Your task to perform on an android device: find snoozed emails in the gmail app Image 0: 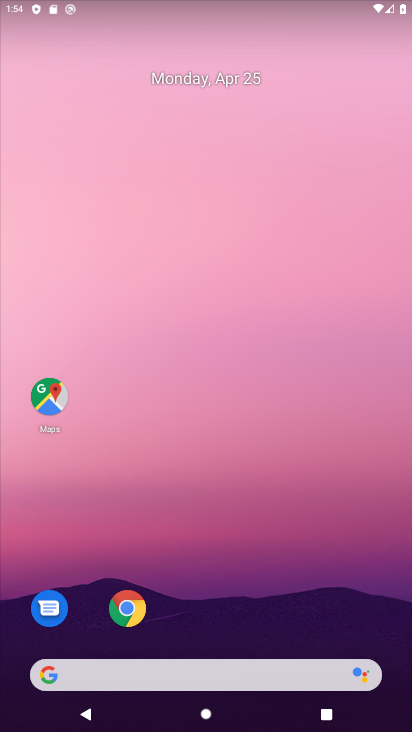
Step 0: drag from (207, 616) to (238, 191)
Your task to perform on an android device: find snoozed emails in the gmail app Image 1: 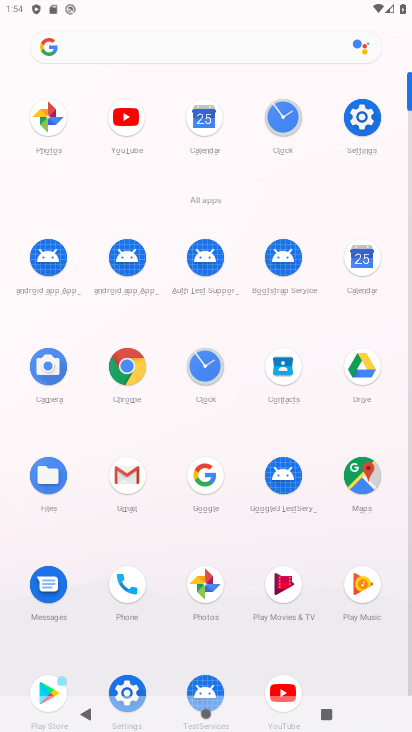
Step 1: click (130, 479)
Your task to perform on an android device: find snoozed emails in the gmail app Image 2: 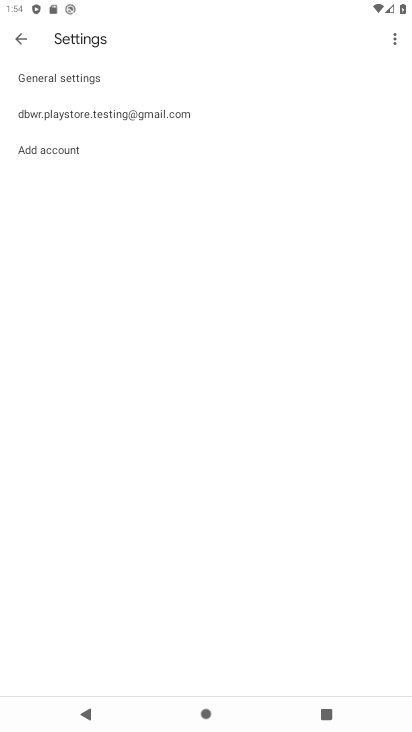
Step 2: click (139, 120)
Your task to perform on an android device: find snoozed emails in the gmail app Image 3: 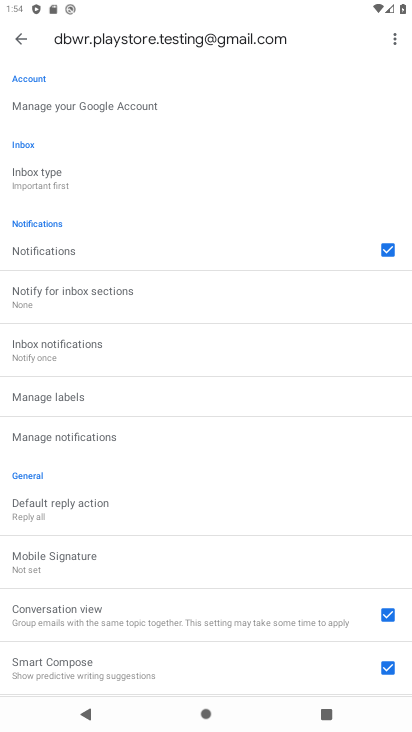
Step 3: drag from (116, 585) to (182, 214)
Your task to perform on an android device: find snoozed emails in the gmail app Image 4: 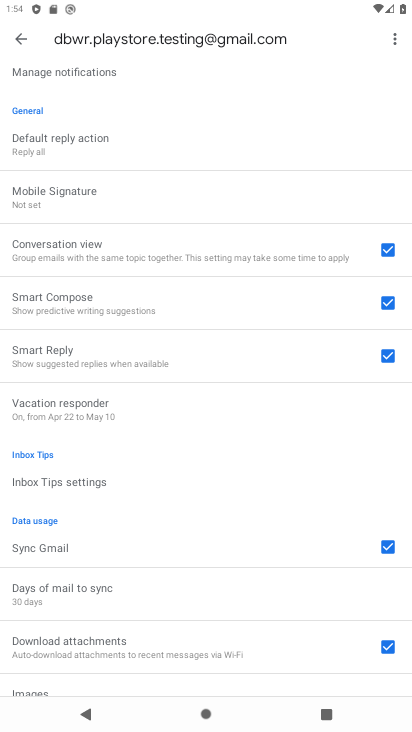
Step 4: click (21, 42)
Your task to perform on an android device: find snoozed emails in the gmail app Image 5: 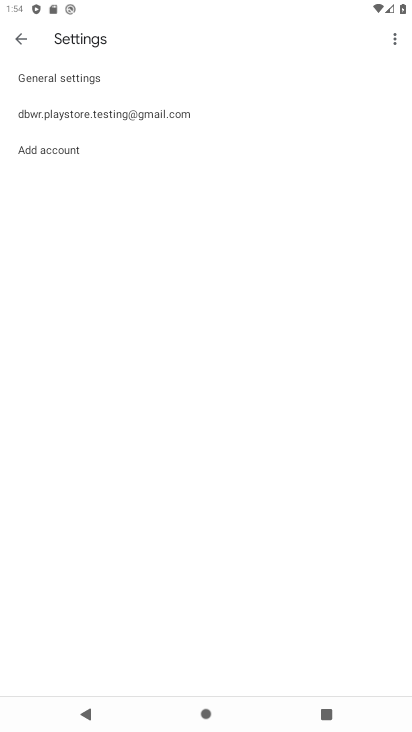
Step 5: click (21, 42)
Your task to perform on an android device: find snoozed emails in the gmail app Image 6: 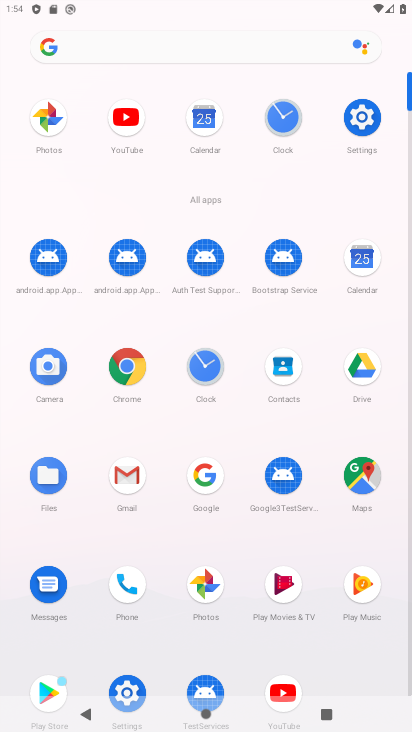
Step 6: click (123, 477)
Your task to perform on an android device: find snoozed emails in the gmail app Image 7: 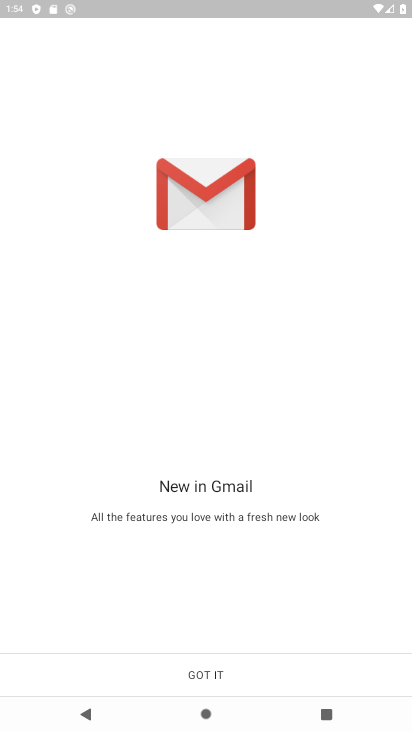
Step 7: click (206, 669)
Your task to perform on an android device: find snoozed emails in the gmail app Image 8: 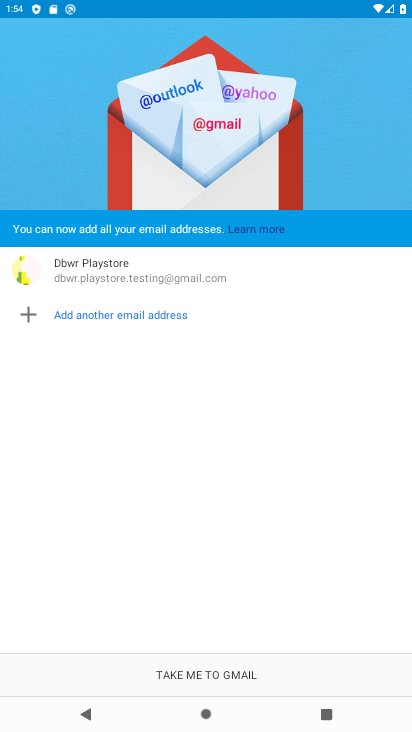
Step 8: click (196, 679)
Your task to perform on an android device: find snoozed emails in the gmail app Image 9: 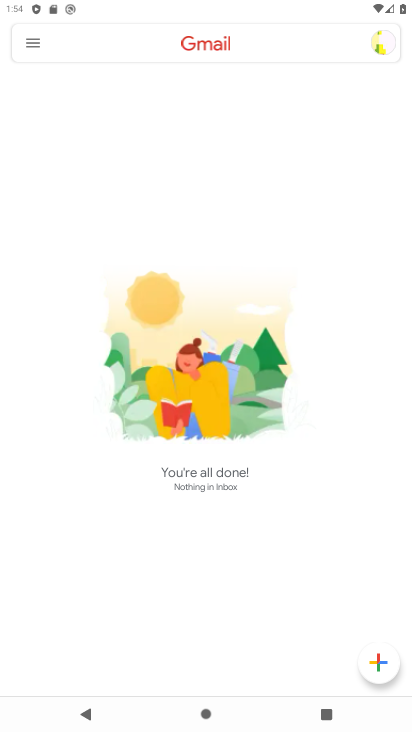
Step 9: click (34, 40)
Your task to perform on an android device: find snoozed emails in the gmail app Image 10: 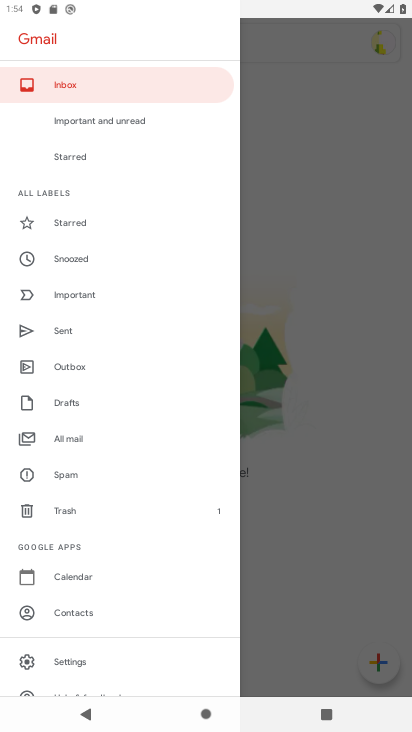
Step 10: click (109, 259)
Your task to perform on an android device: find snoozed emails in the gmail app Image 11: 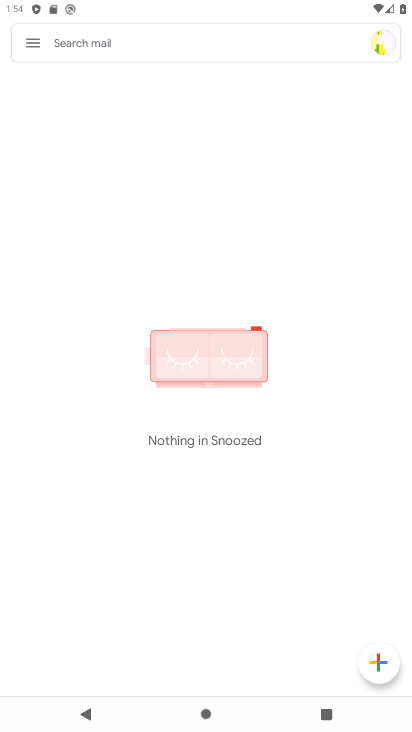
Step 11: task complete